Your task to perform on an android device: Go to location settings Image 0: 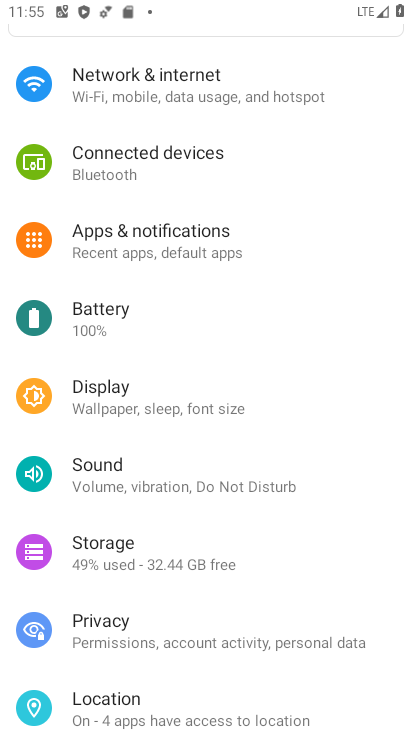
Step 0: drag from (113, 649) to (157, 488)
Your task to perform on an android device: Go to location settings Image 1: 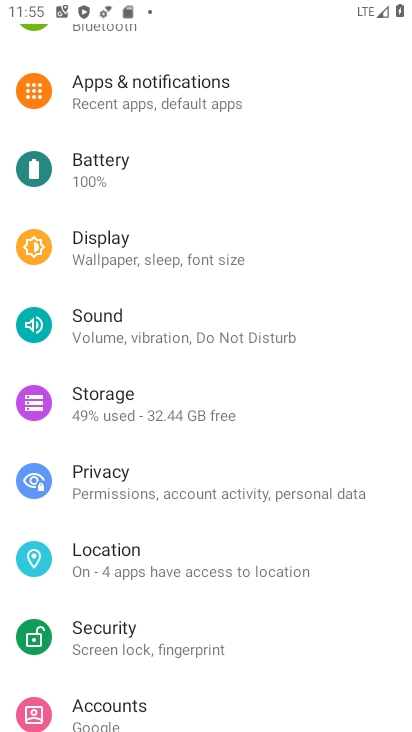
Step 1: click (138, 557)
Your task to perform on an android device: Go to location settings Image 2: 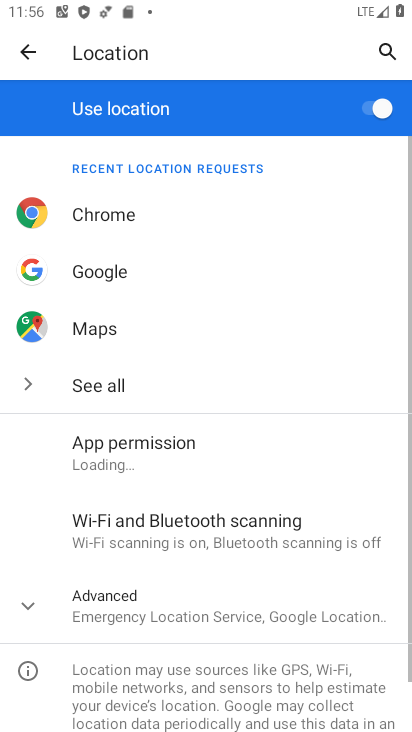
Step 2: task complete